Your task to perform on an android device: turn on location history Image 0: 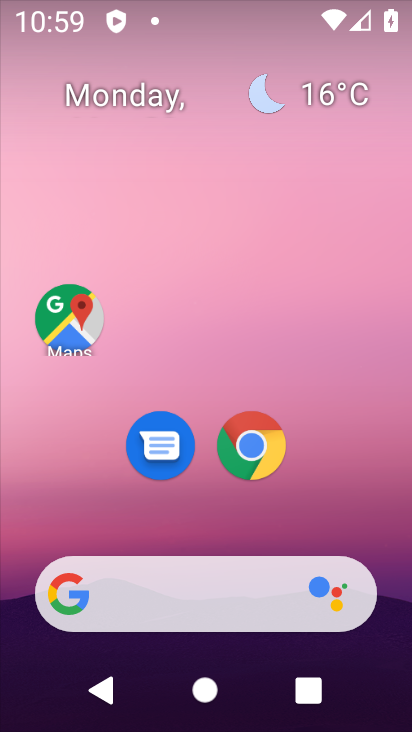
Step 0: drag from (199, 530) to (210, 0)
Your task to perform on an android device: turn on location history Image 1: 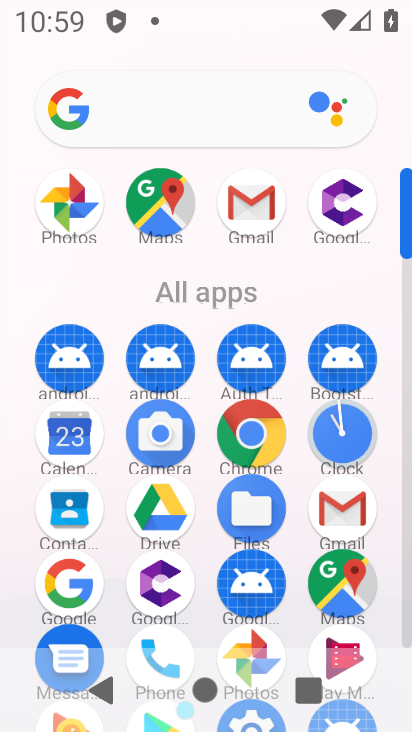
Step 1: drag from (199, 531) to (196, 249)
Your task to perform on an android device: turn on location history Image 2: 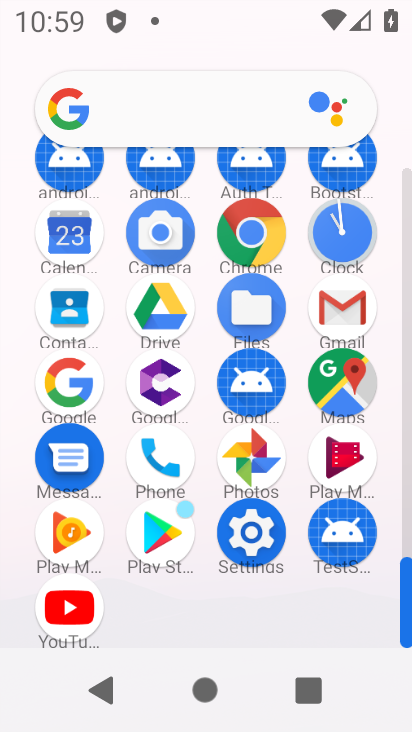
Step 2: click (253, 541)
Your task to perform on an android device: turn on location history Image 3: 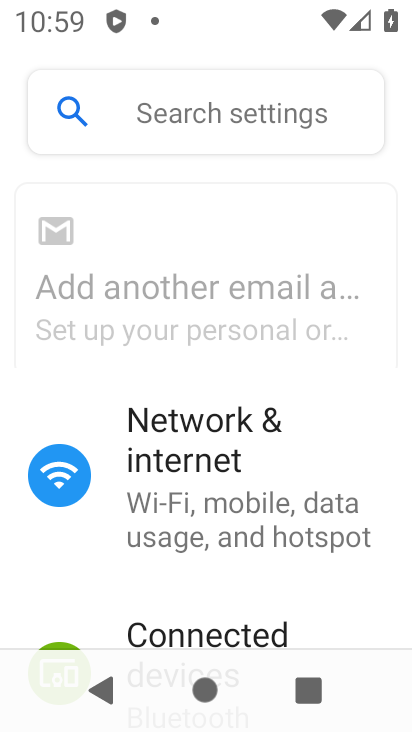
Step 3: drag from (254, 587) to (299, 36)
Your task to perform on an android device: turn on location history Image 4: 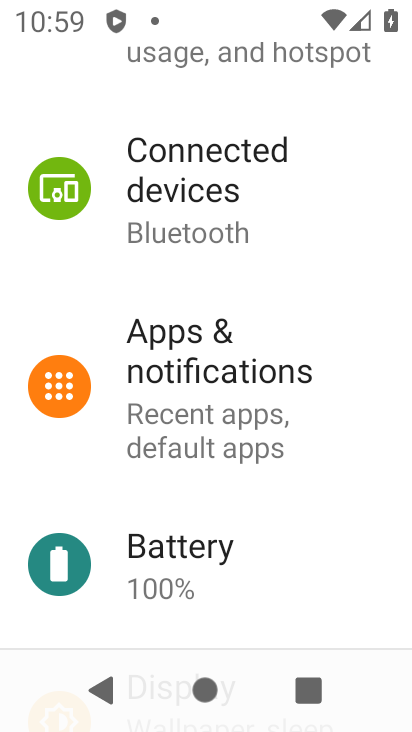
Step 4: drag from (216, 562) to (226, 224)
Your task to perform on an android device: turn on location history Image 5: 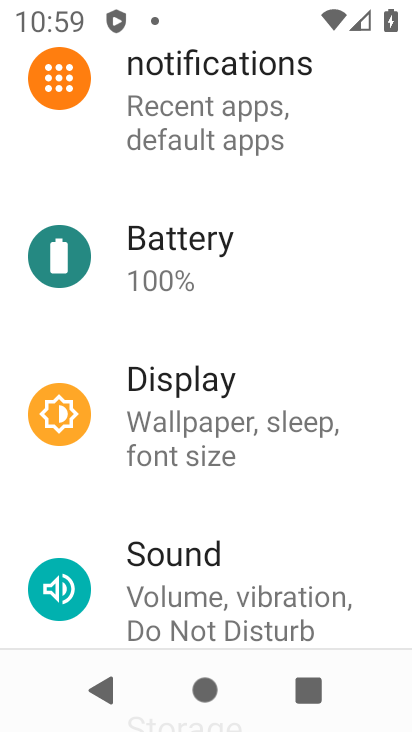
Step 5: drag from (264, 509) to (302, 67)
Your task to perform on an android device: turn on location history Image 6: 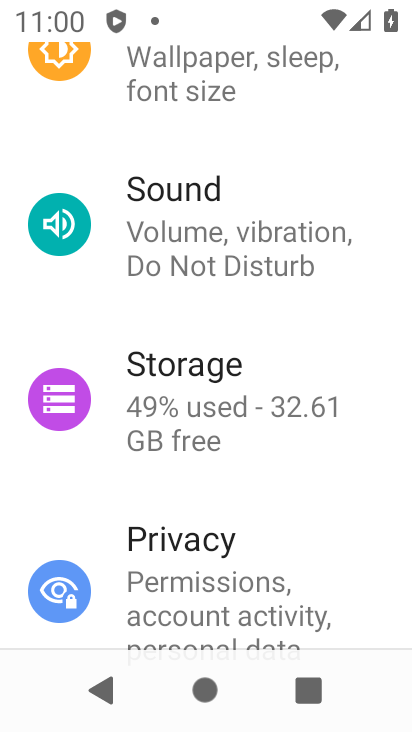
Step 6: drag from (255, 457) to (267, 33)
Your task to perform on an android device: turn on location history Image 7: 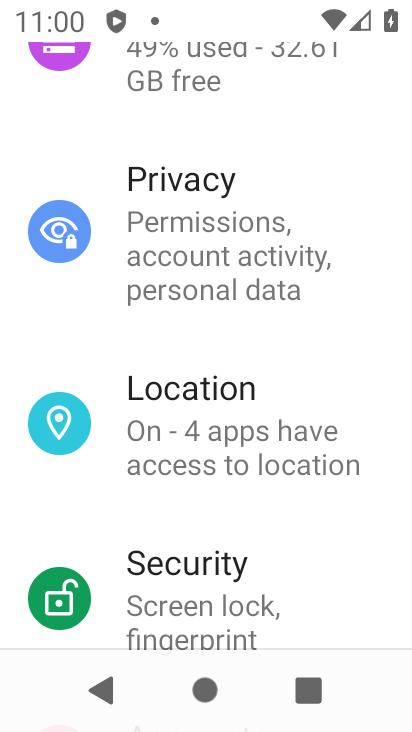
Step 7: click (239, 434)
Your task to perform on an android device: turn on location history Image 8: 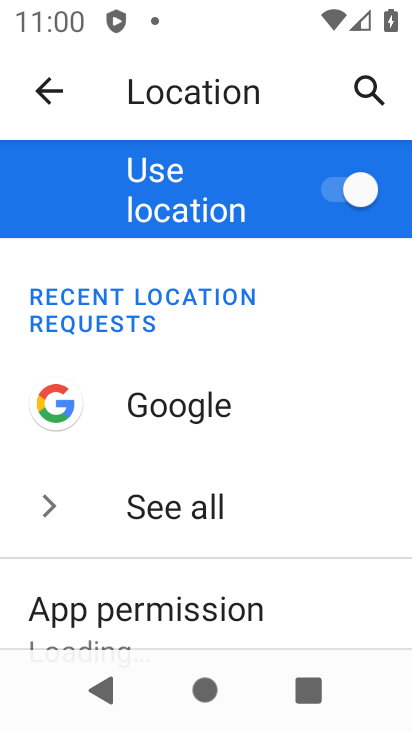
Step 8: drag from (223, 533) to (227, 76)
Your task to perform on an android device: turn on location history Image 9: 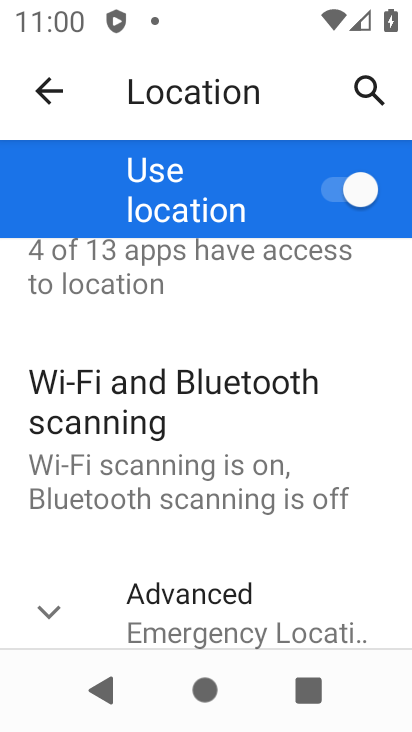
Step 9: drag from (214, 607) to (214, 476)
Your task to perform on an android device: turn on location history Image 10: 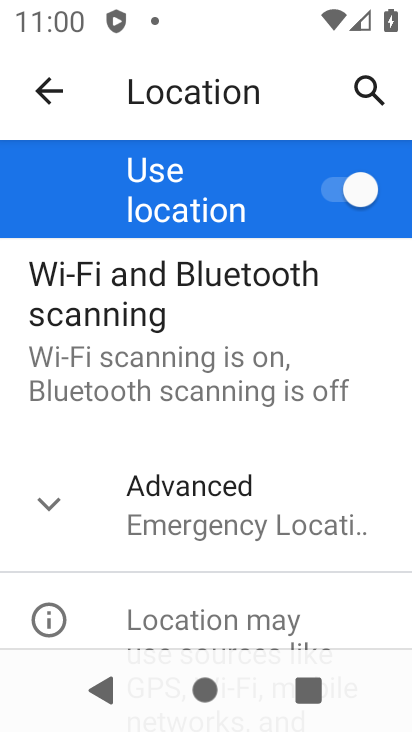
Step 10: drag from (177, 606) to (191, 433)
Your task to perform on an android device: turn on location history Image 11: 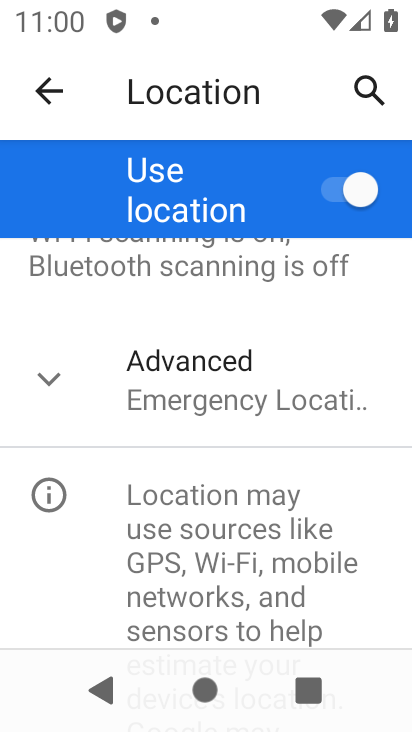
Step 11: click (175, 392)
Your task to perform on an android device: turn on location history Image 12: 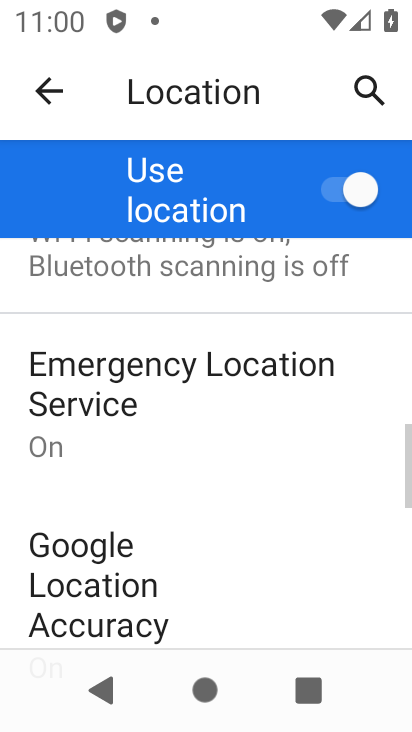
Step 12: drag from (202, 579) to (222, 329)
Your task to perform on an android device: turn on location history Image 13: 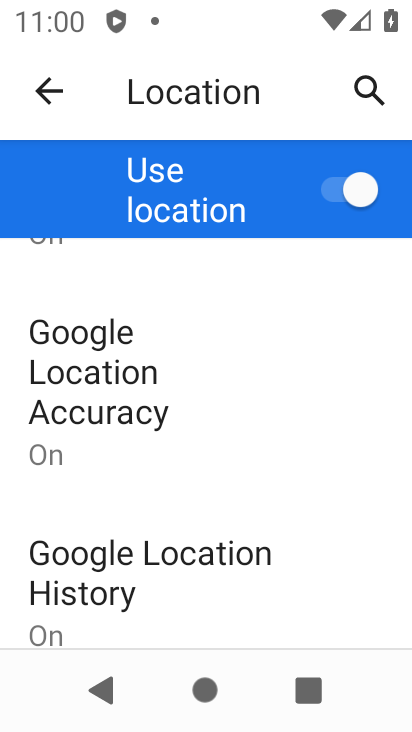
Step 13: click (219, 599)
Your task to perform on an android device: turn on location history Image 14: 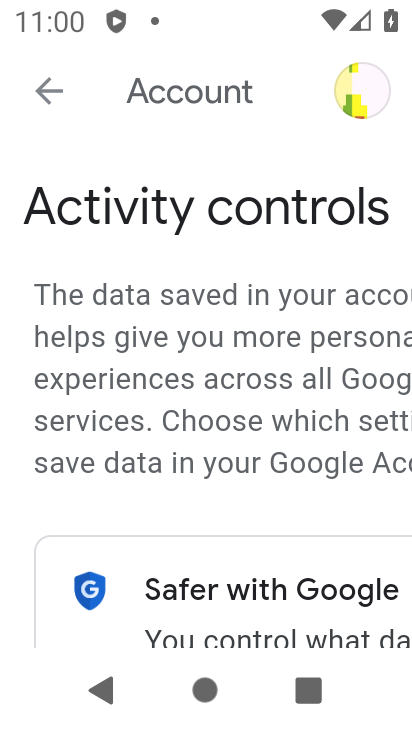
Step 14: drag from (234, 595) to (336, 18)
Your task to perform on an android device: turn on location history Image 15: 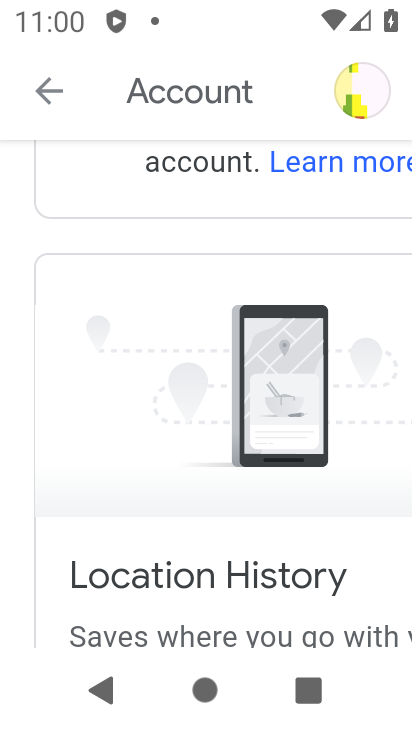
Step 15: drag from (217, 568) to (291, 12)
Your task to perform on an android device: turn on location history Image 16: 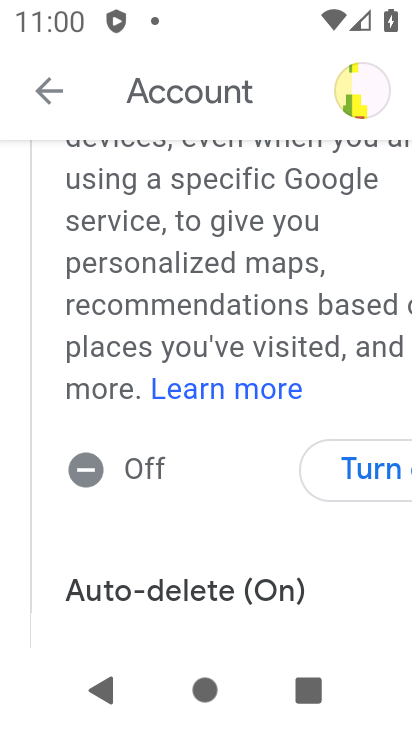
Step 16: click (348, 463)
Your task to perform on an android device: turn on location history Image 17: 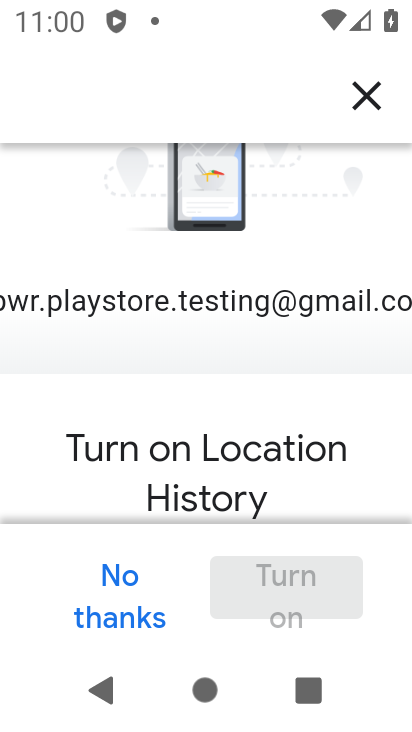
Step 17: drag from (172, 501) to (282, 5)
Your task to perform on an android device: turn on location history Image 18: 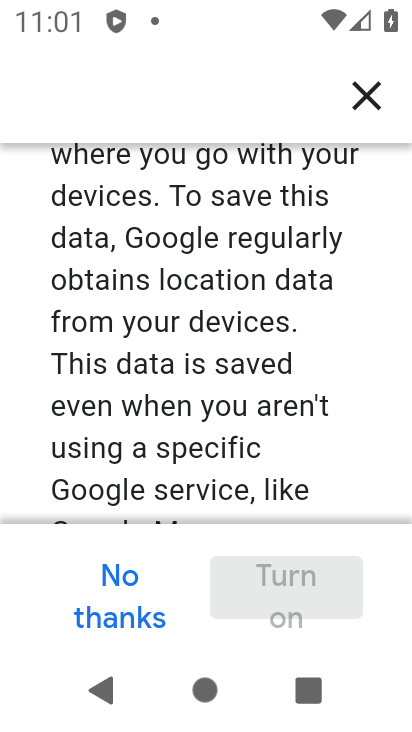
Step 18: drag from (261, 422) to (277, 0)
Your task to perform on an android device: turn on location history Image 19: 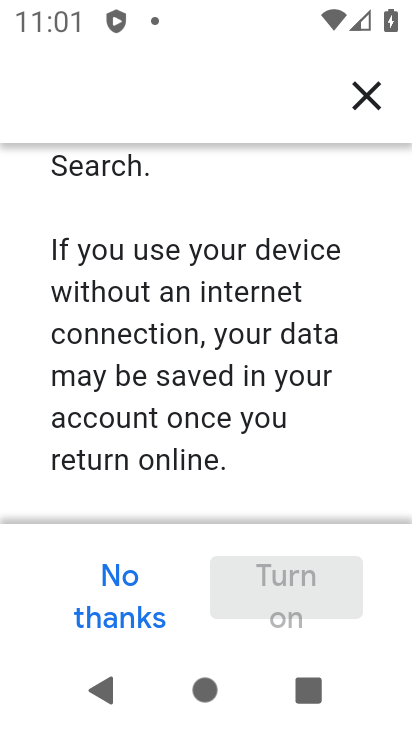
Step 19: drag from (228, 455) to (190, 6)
Your task to perform on an android device: turn on location history Image 20: 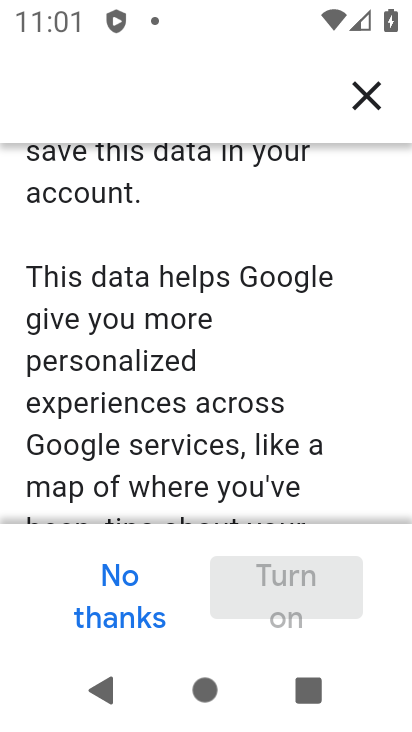
Step 20: drag from (189, 447) to (258, 2)
Your task to perform on an android device: turn on location history Image 21: 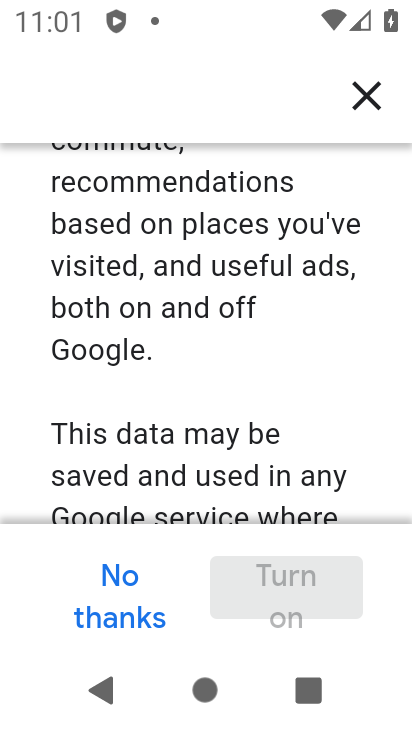
Step 21: drag from (223, 467) to (272, 55)
Your task to perform on an android device: turn on location history Image 22: 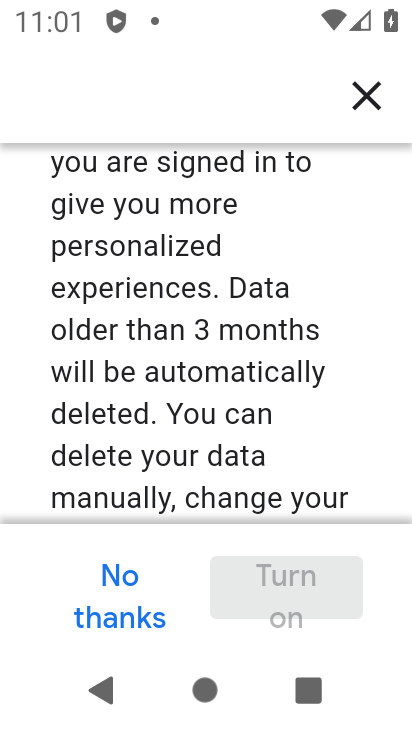
Step 22: drag from (148, 502) to (201, 5)
Your task to perform on an android device: turn on location history Image 23: 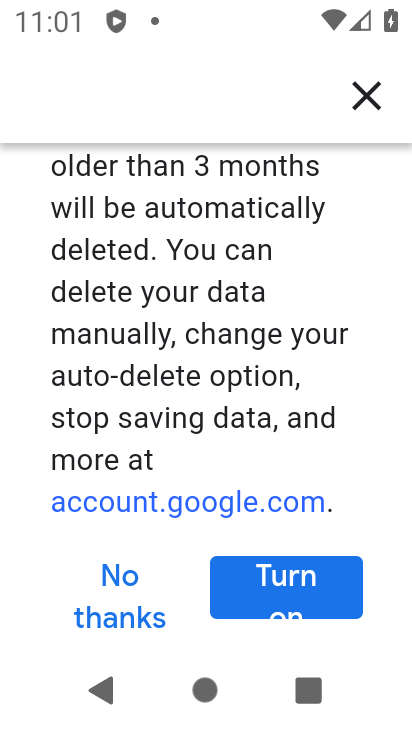
Step 23: drag from (276, 588) to (309, 392)
Your task to perform on an android device: turn on location history Image 24: 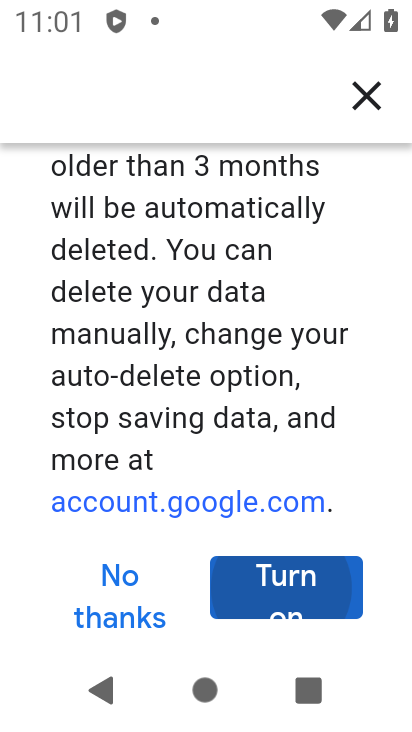
Step 24: click (278, 598)
Your task to perform on an android device: turn on location history Image 25: 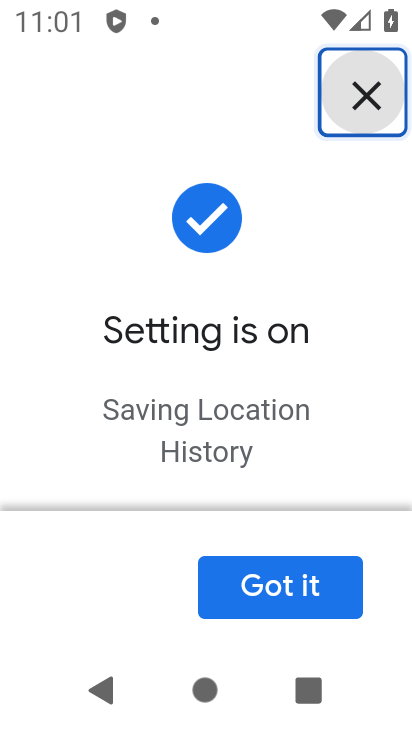
Step 25: click (279, 598)
Your task to perform on an android device: turn on location history Image 26: 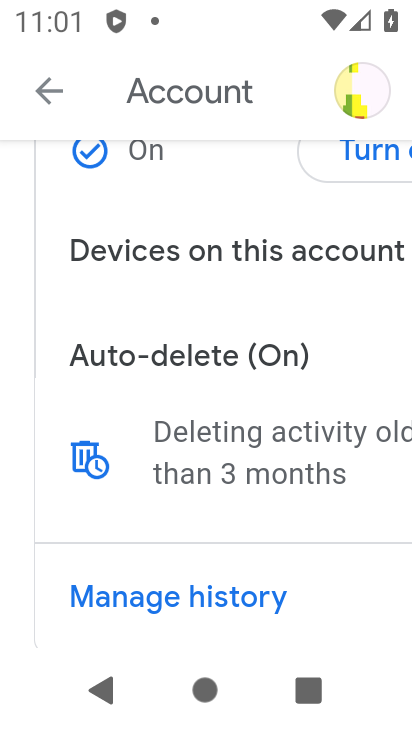
Step 26: task complete